Your task to perform on an android device: allow cookies in the chrome app Image 0: 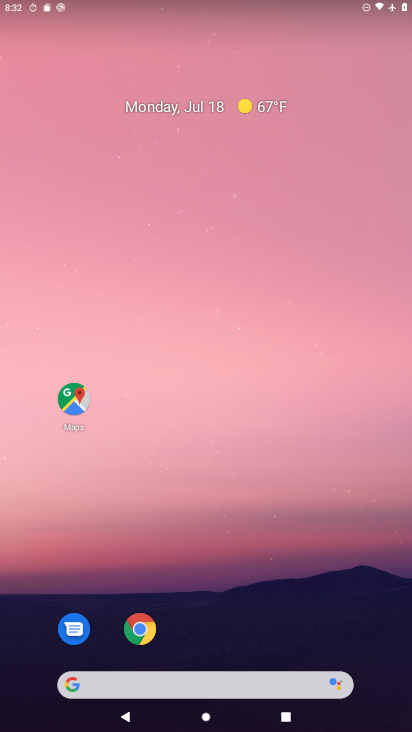
Step 0: click (144, 633)
Your task to perform on an android device: allow cookies in the chrome app Image 1: 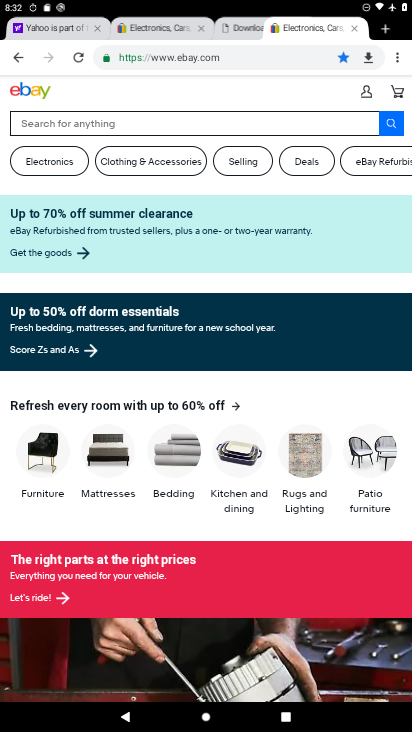
Step 1: click (399, 56)
Your task to perform on an android device: allow cookies in the chrome app Image 2: 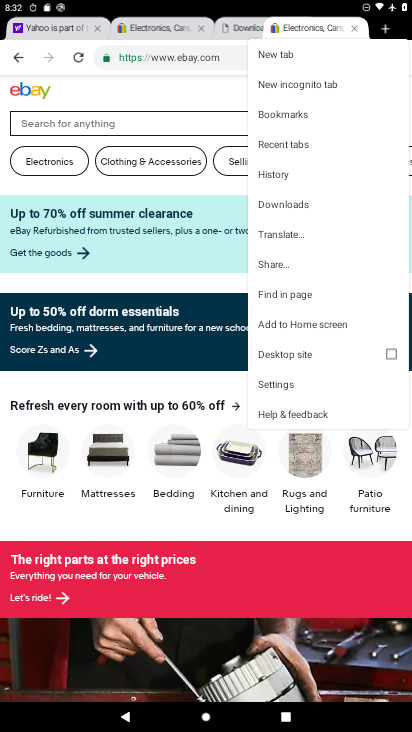
Step 2: click (271, 382)
Your task to perform on an android device: allow cookies in the chrome app Image 3: 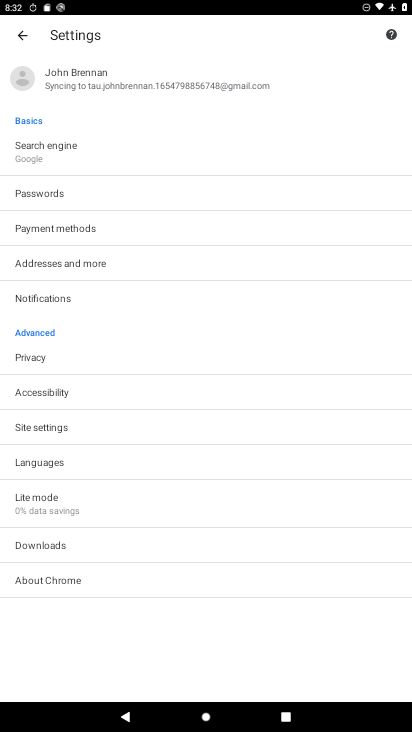
Step 3: click (33, 428)
Your task to perform on an android device: allow cookies in the chrome app Image 4: 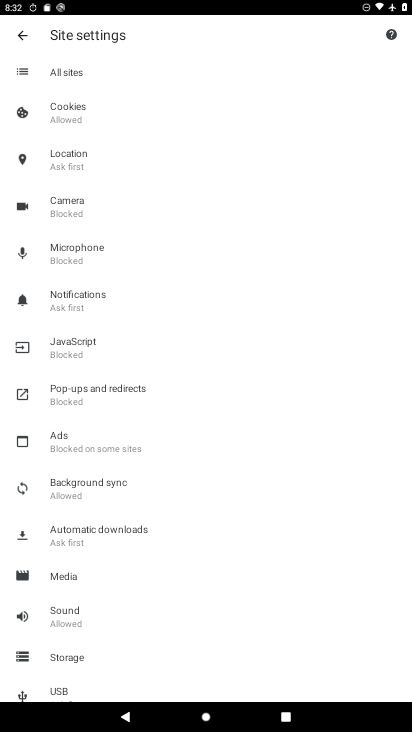
Step 4: click (64, 108)
Your task to perform on an android device: allow cookies in the chrome app Image 5: 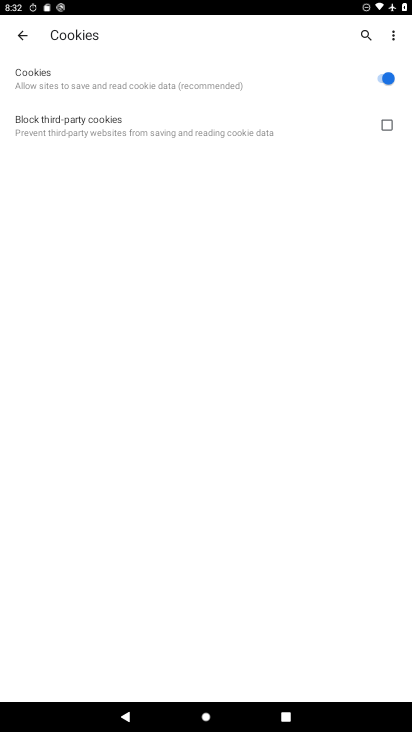
Step 5: task complete